Your task to perform on an android device: turn off wifi Image 0: 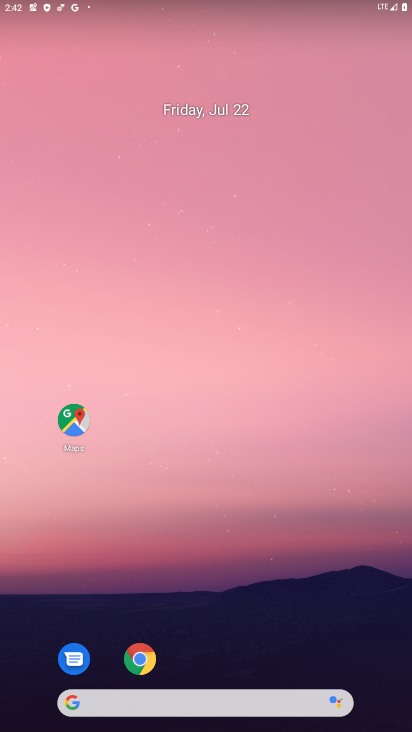
Step 0: drag from (176, 469) to (163, 202)
Your task to perform on an android device: turn off wifi Image 1: 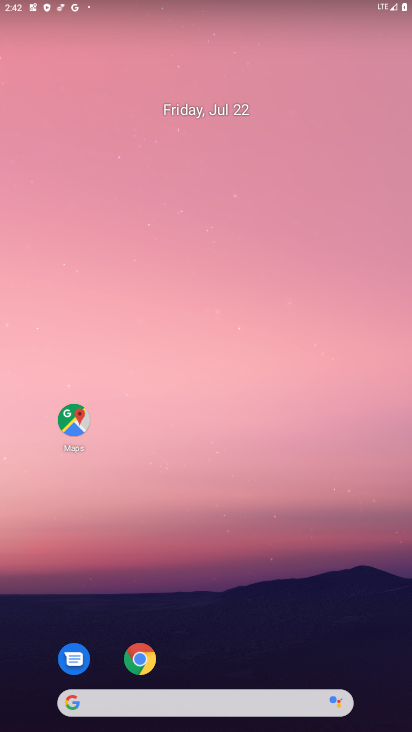
Step 1: drag from (190, 541) to (184, 103)
Your task to perform on an android device: turn off wifi Image 2: 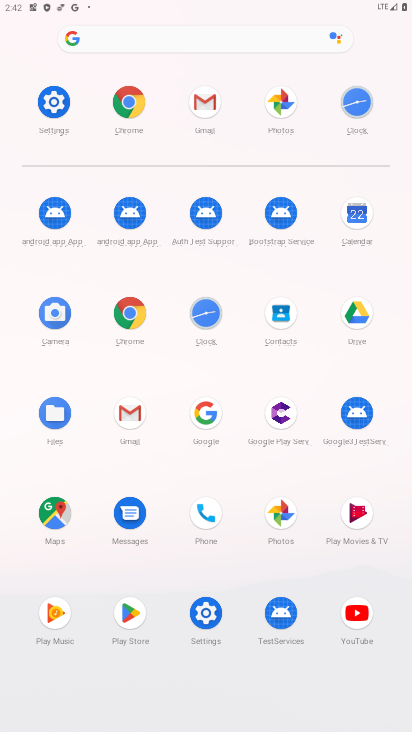
Step 2: click (59, 112)
Your task to perform on an android device: turn off wifi Image 3: 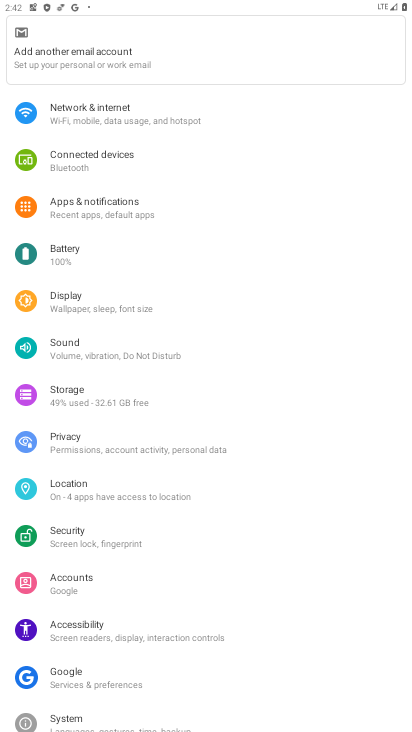
Step 3: click (97, 114)
Your task to perform on an android device: turn off wifi Image 4: 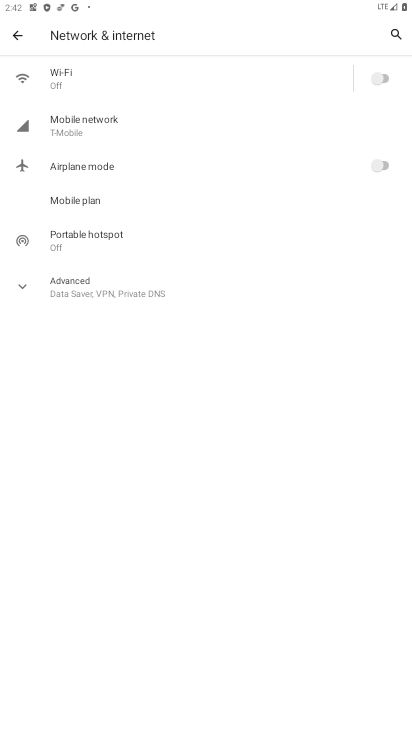
Step 4: task complete